Your task to perform on an android device: add a label to a message in the gmail app Image 0: 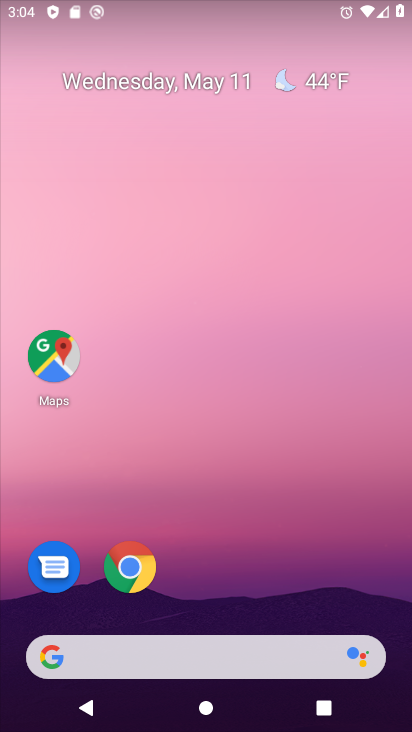
Step 0: drag from (194, 534) to (183, 47)
Your task to perform on an android device: add a label to a message in the gmail app Image 1: 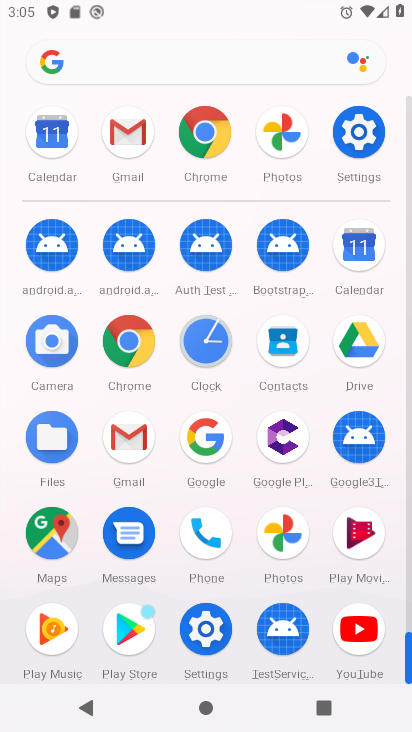
Step 1: drag from (4, 461) to (8, 223)
Your task to perform on an android device: add a label to a message in the gmail app Image 2: 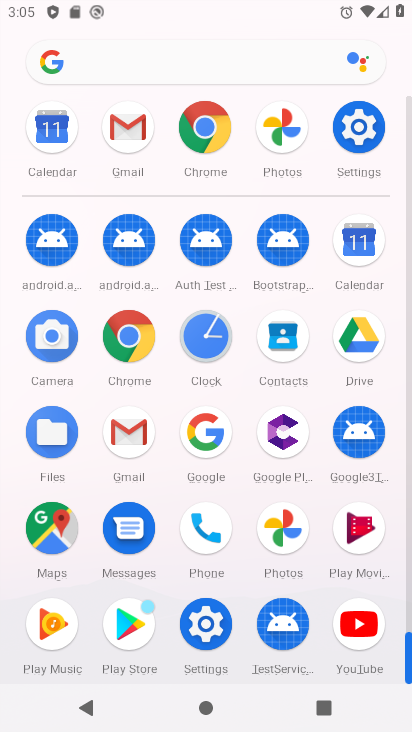
Step 2: click (127, 430)
Your task to perform on an android device: add a label to a message in the gmail app Image 3: 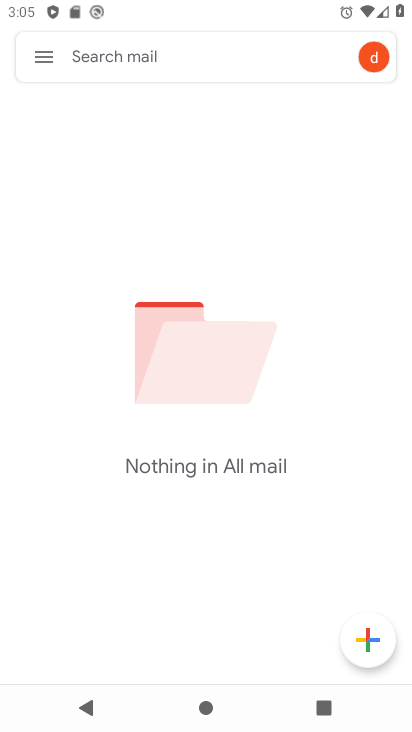
Step 3: click (44, 53)
Your task to perform on an android device: add a label to a message in the gmail app Image 4: 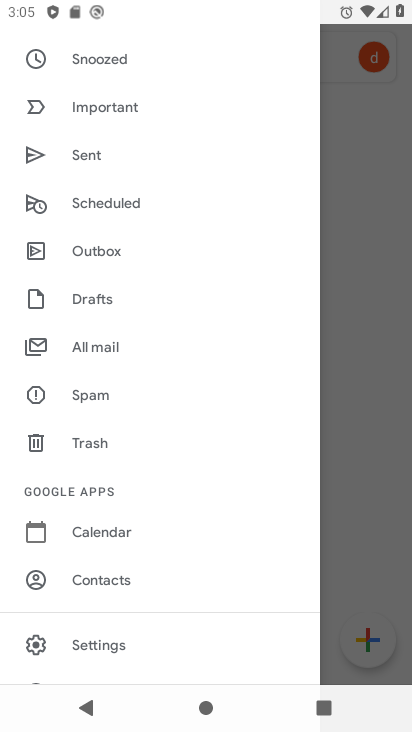
Step 4: click (123, 334)
Your task to perform on an android device: add a label to a message in the gmail app Image 5: 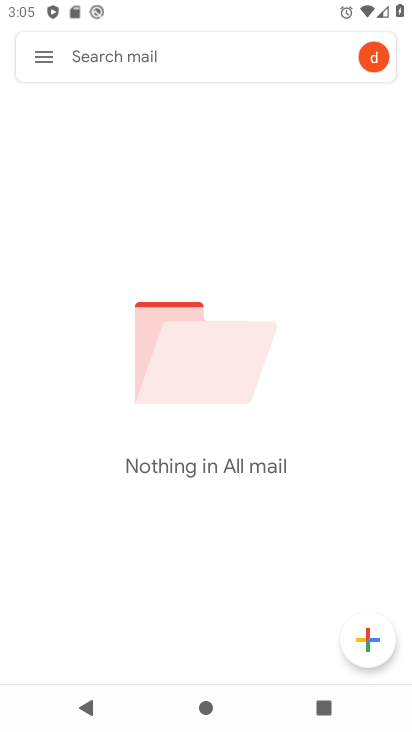
Step 5: task complete